Your task to perform on an android device: Go to calendar. Show me events next week Image 0: 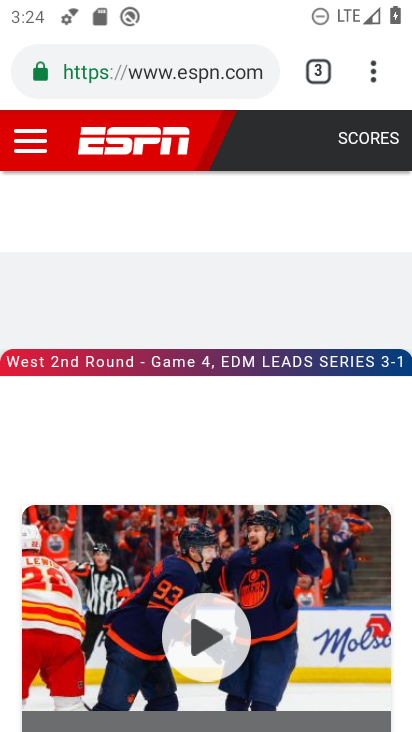
Step 0: press home button
Your task to perform on an android device: Go to calendar. Show me events next week Image 1: 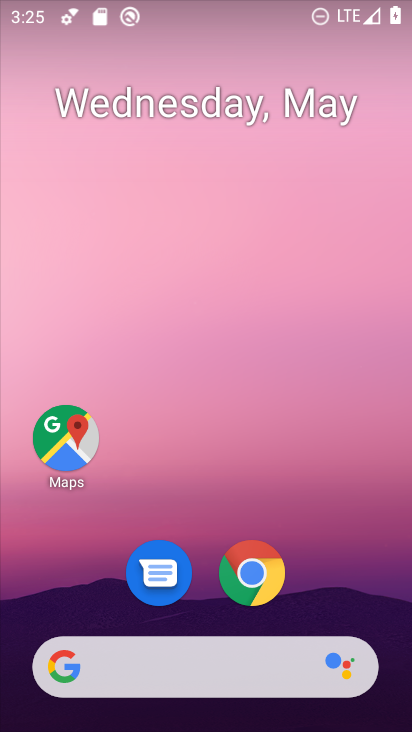
Step 1: drag from (304, 611) to (313, 53)
Your task to perform on an android device: Go to calendar. Show me events next week Image 2: 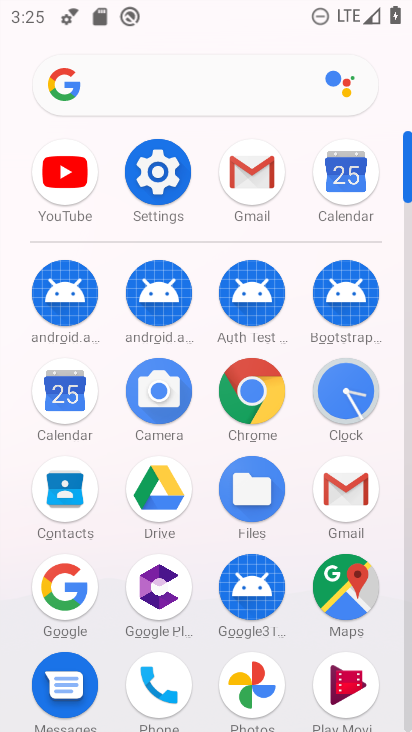
Step 2: click (54, 399)
Your task to perform on an android device: Go to calendar. Show me events next week Image 3: 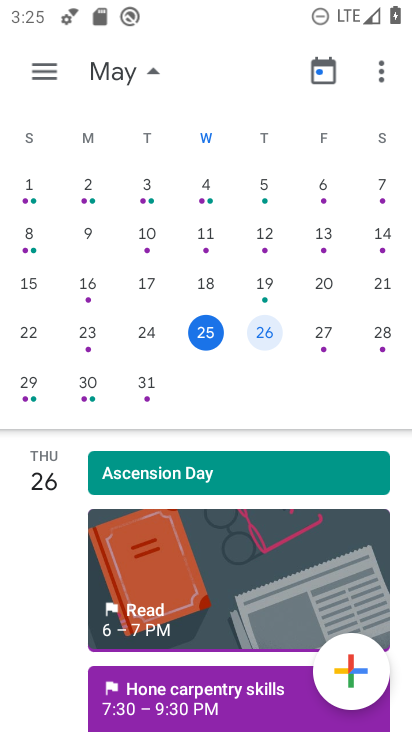
Step 3: click (30, 385)
Your task to perform on an android device: Go to calendar. Show me events next week Image 4: 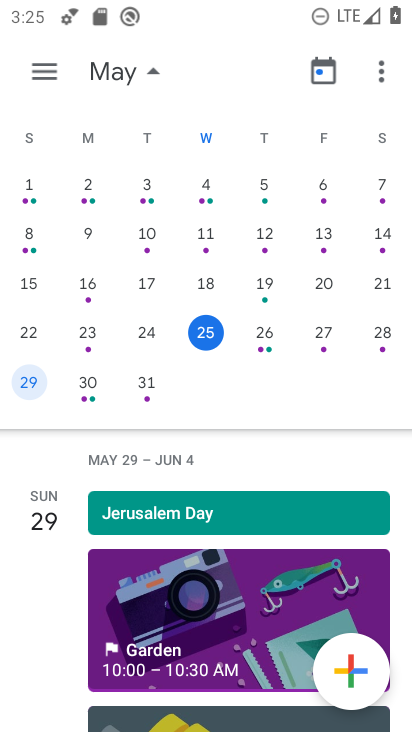
Step 4: task complete